Your task to perform on an android device: Check the news Image 0: 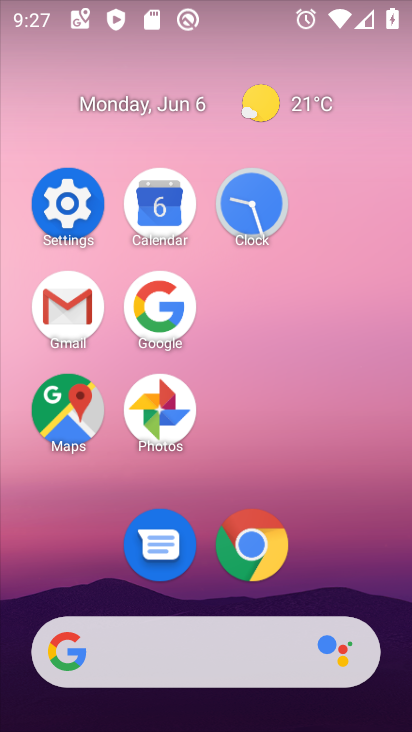
Step 0: click (154, 325)
Your task to perform on an android device: Check the news Image 1: 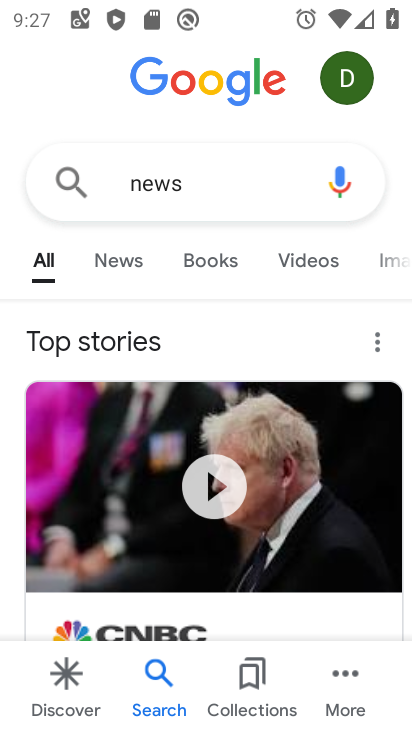
Step 1: task complete